Your task to perform on an android device: Go to sound settings Image 0: 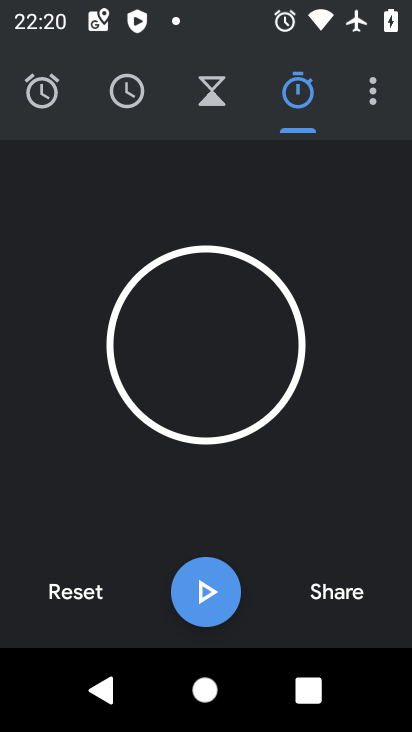
Step 0: press home button
Your task to perform on an android device: Go to sound settings Image 1: 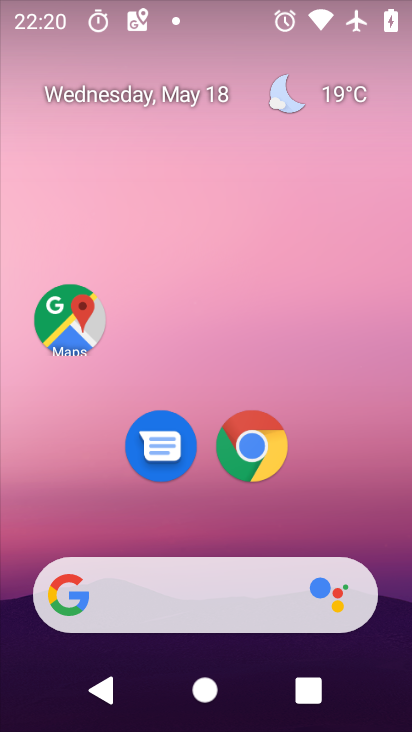
Step 1: click (361, 78)
Your task to perform on an android device: Go to sound settings Image 2: 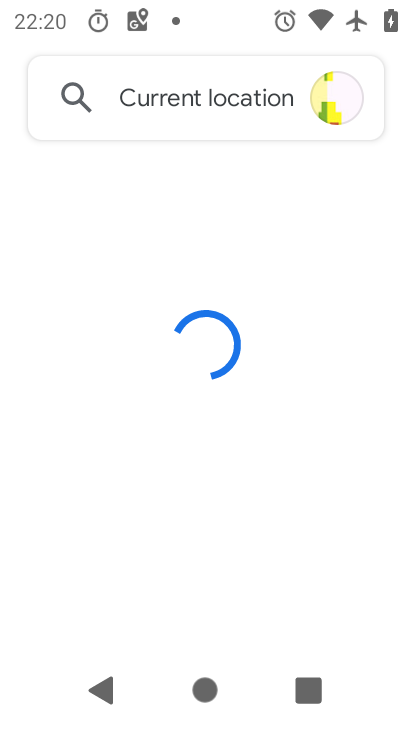
Step 2: press home button
Your task to perform on an android device: Go to sound settings Image 3: 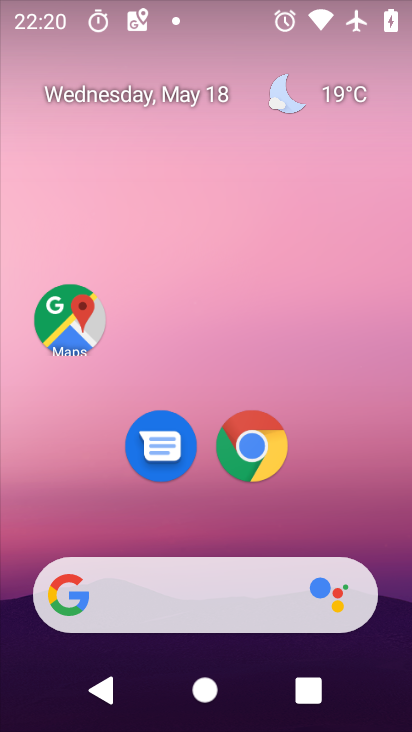
Step 3: drag from (240, 581) to (317, 194)
Your task to perform on an android device: Go to sound settings Image 4: 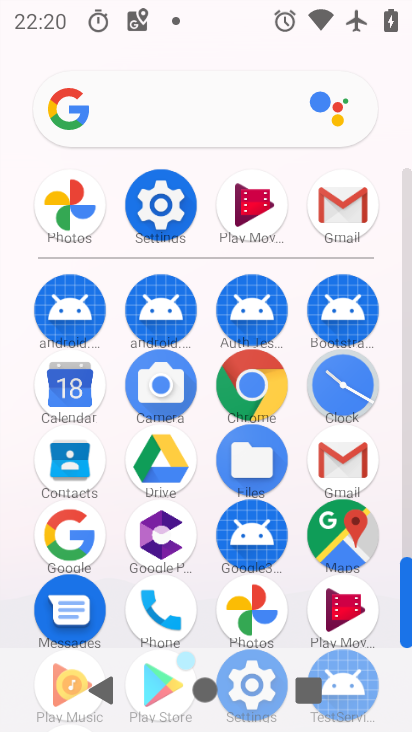
Step 4: click (157, 208)
Your task to perform on an android device: Go to sound settings Image 5: 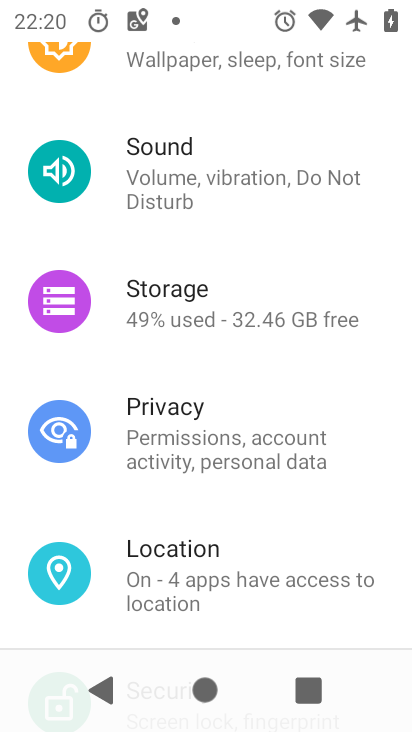
Step 5: click (195, 177)
Your task to perform on an android device: Go to sound settings Image 6: 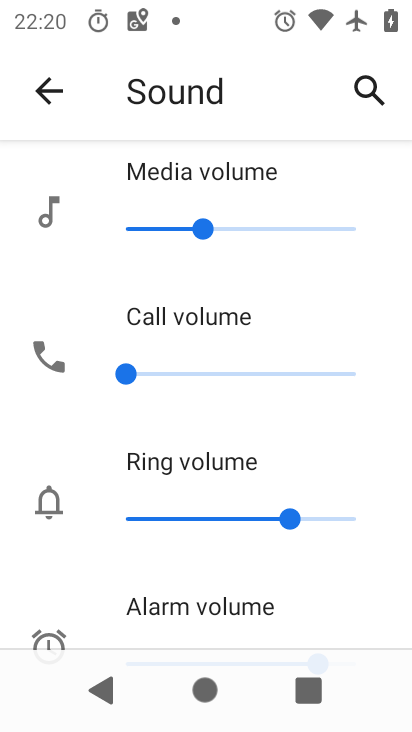
Step 6: task complete